Your task to perform on an android device: Go to ESPN.com Image 0: 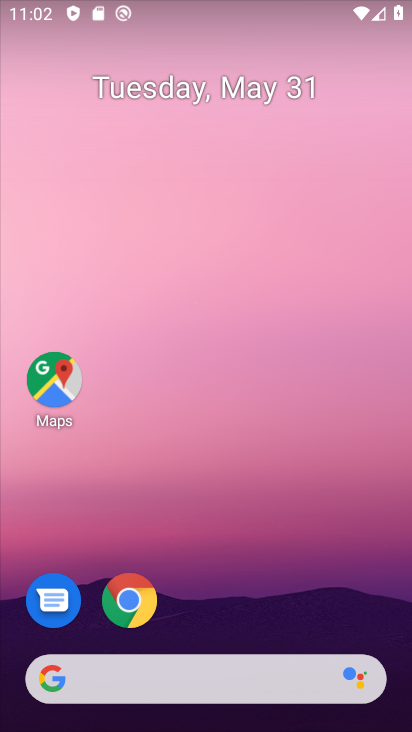
Step 0: click (133, 604)
Your task to perform on an android device: Go to ESPN.com Image 1: 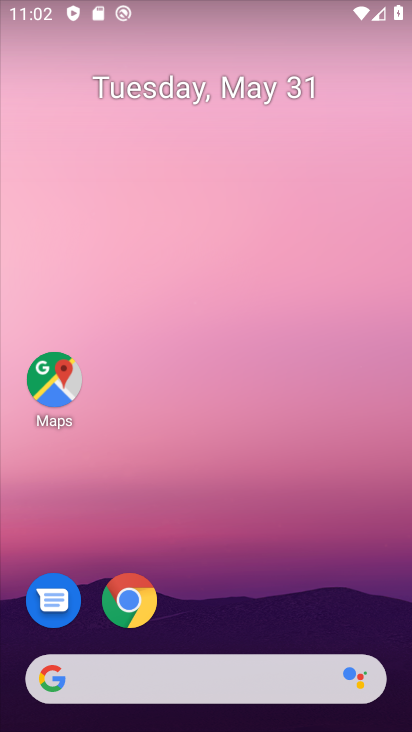
Step 1: click (133, 604)
Your task to perform on an android device: Go to ESPN.com Image 2: 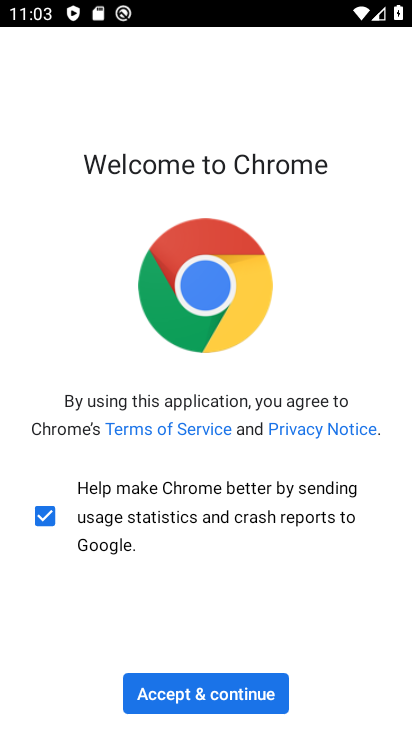
Step 2: drag from (337, 636) to (255, 691)
Your task to perform on an android device: Go to ESPN.com Image 3: 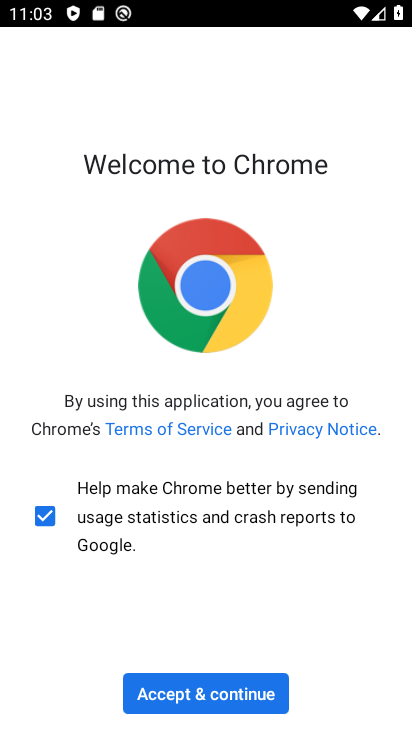
Step 3: drag from (337, 636) to (255, 691)
Your task to perform on an android device: Go to ESPN.com Image 4: 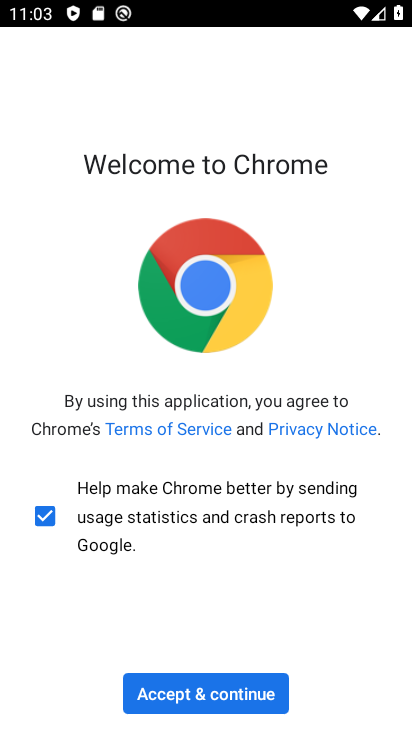
Step 4: click (200, 684)
Your task to perform on an android device: Go to ESPN.com Image 5: 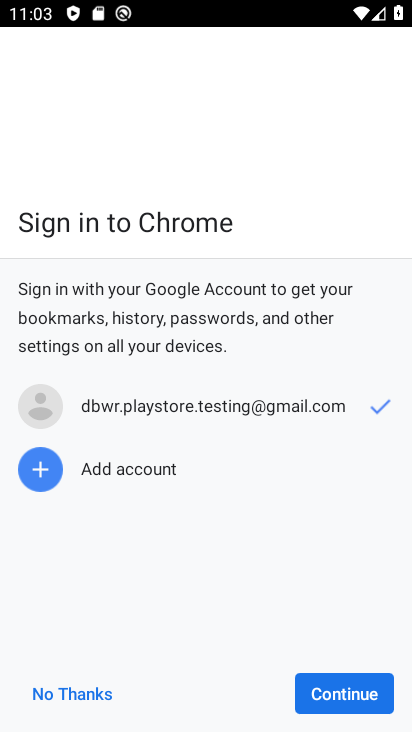
Step 5: drag from (208, 694) to (93, 697)
Your task to perform on an android device: Go to ESPN.com Image 6: 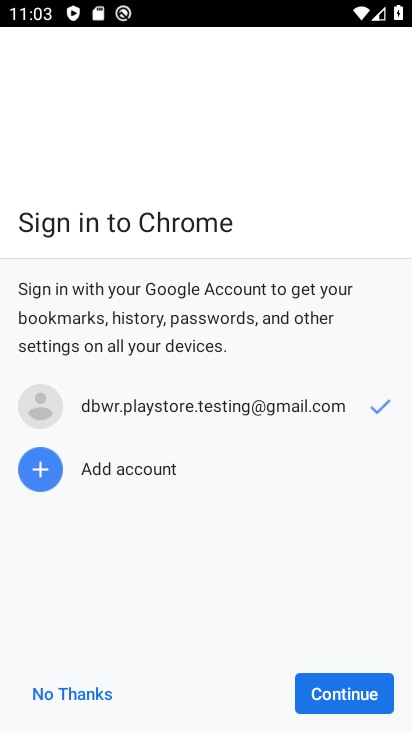
Step 6: click (92, 697)
Your task to perform on an android device: Go to ESPN.com Image 7: 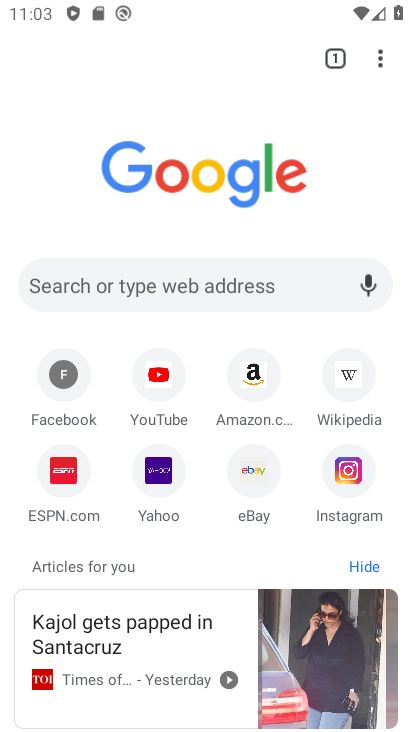
Step 7: click (73, 481)
Your task to perform on an android device: Go to ESPN.com Image 8: 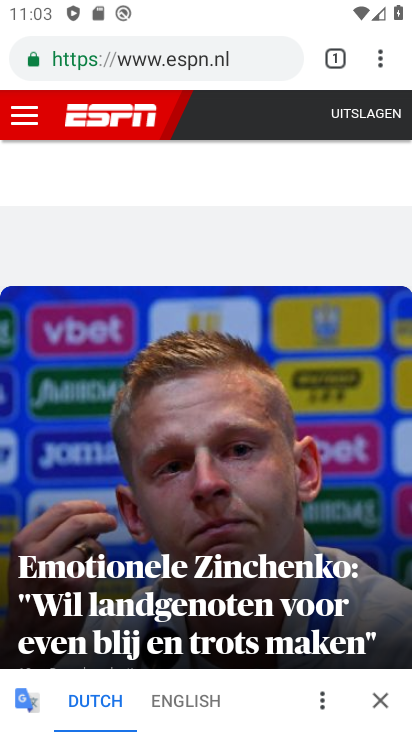
Step 8: task complete